Your task to perform on an android device: Open maps Image 0: 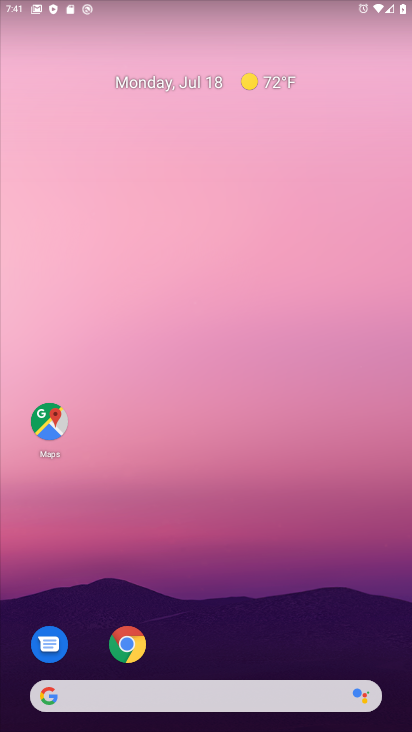
Step 0: drag from (317, 653) to (124, 39)
Your task to perform on an android device: Open maps Image 1: 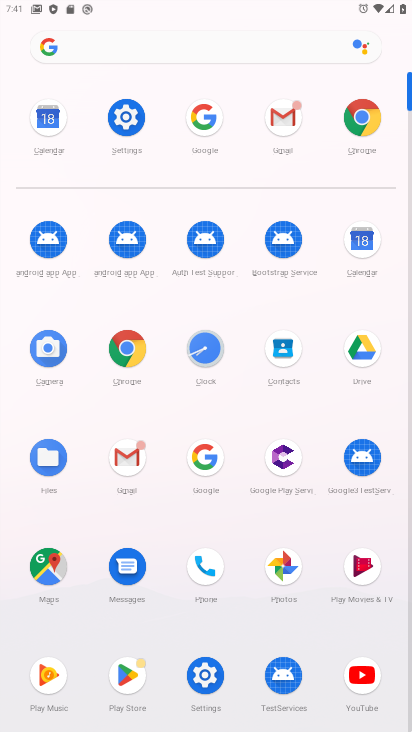
Step 1: click (51, 561)
Your task to perform on an android device: Open maps Image 2: 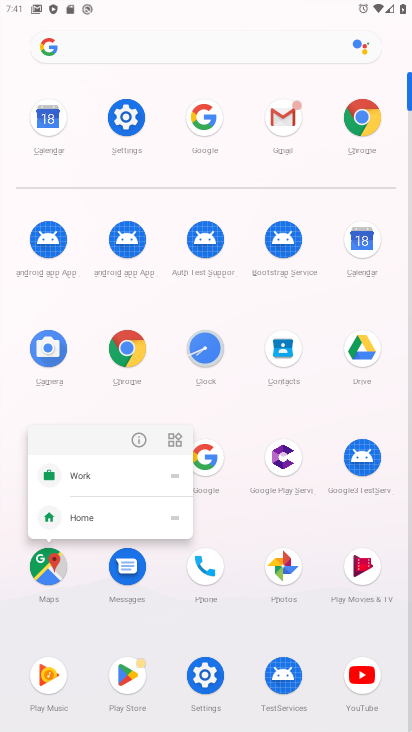
Step 2: click (52, 560)
Your task to perform on an android device: Open maps Image 3: 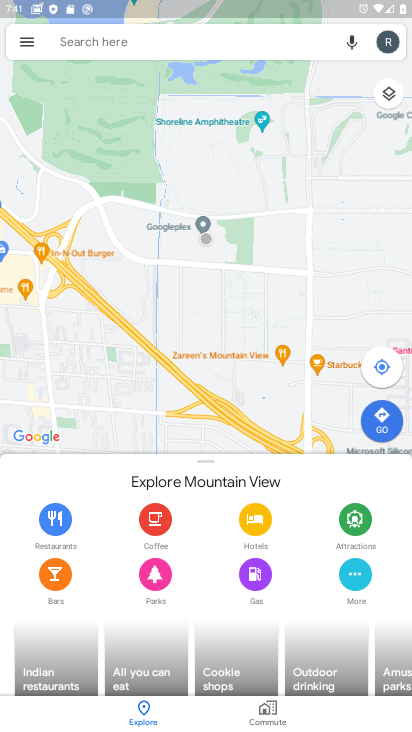
Step 3: task complete